Your task to perform on an android device: manage bookmarks in the chrome app Image 0: 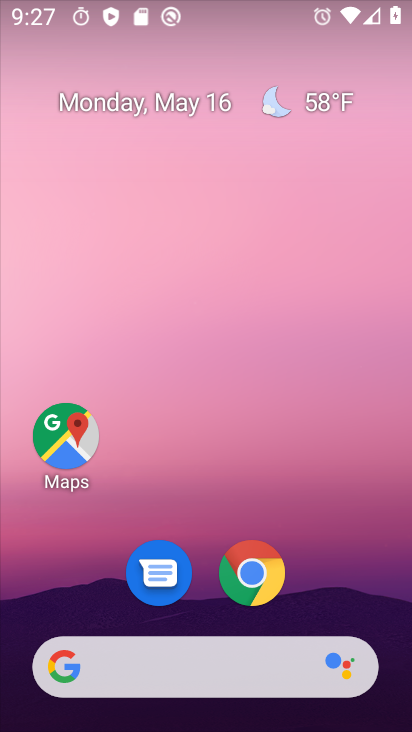
Step 0: drag from (365, 673) to (205, 179)
Your task to perform on an android device: manage bookmarks in the chrome app Image 1: 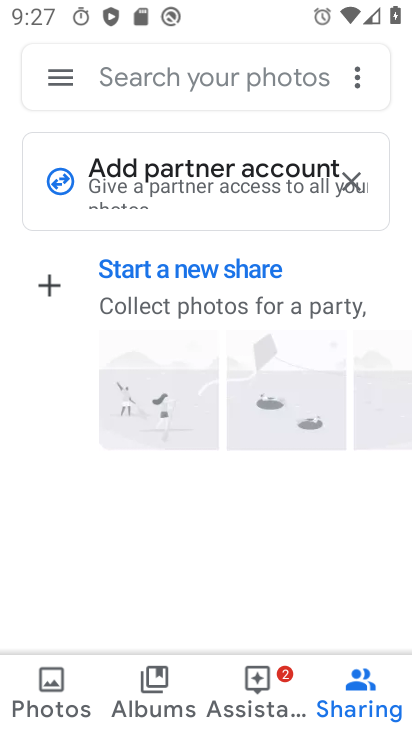
Step 1: press back button
Your task to perform on an android device: manage bookmarks in the chrome app Image 2: 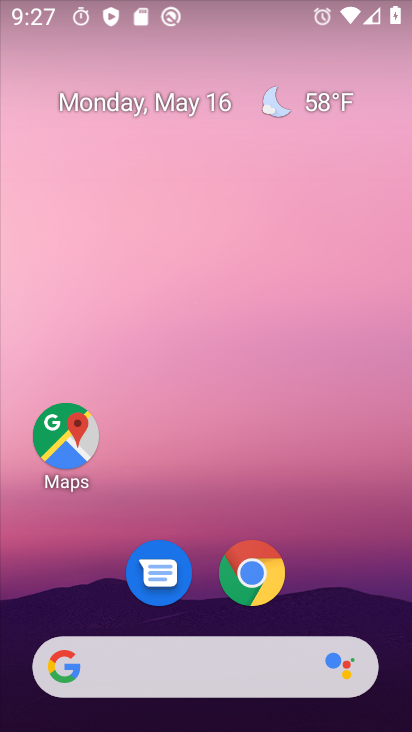
Step 2: drag from (290, 659) to (221, 160)
Your task to perform on an android device: manage bookmarks in the chrome app Image 3: 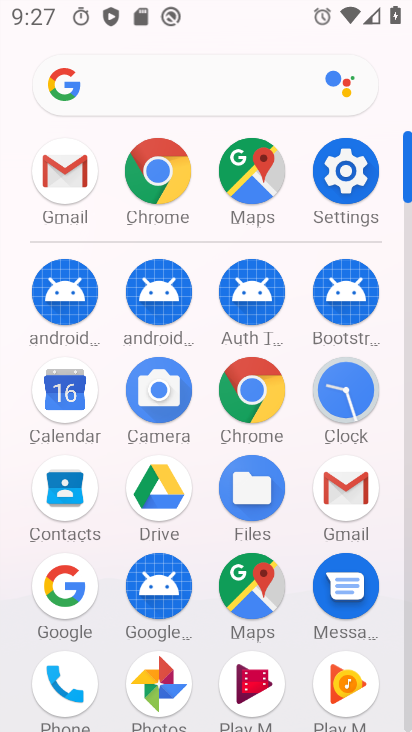
Step 3: click (168, 177)
Your task to perform on an android device: manage bookmarks in the chrome app Image 4: 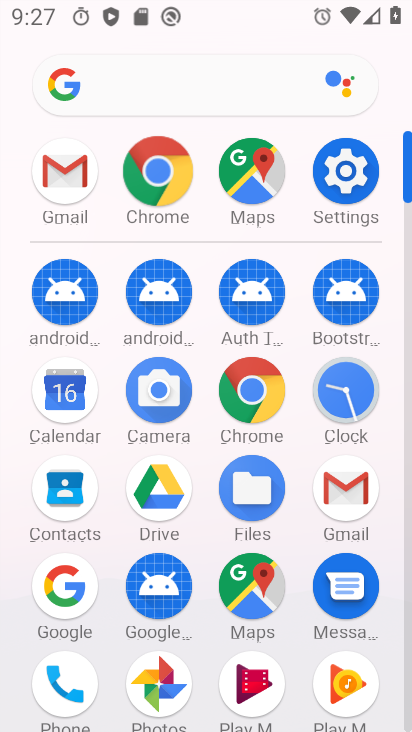
Step 4: click (168, 177)
Your task to perform on an android device: manage bookmarks in the chrome app Image 5: 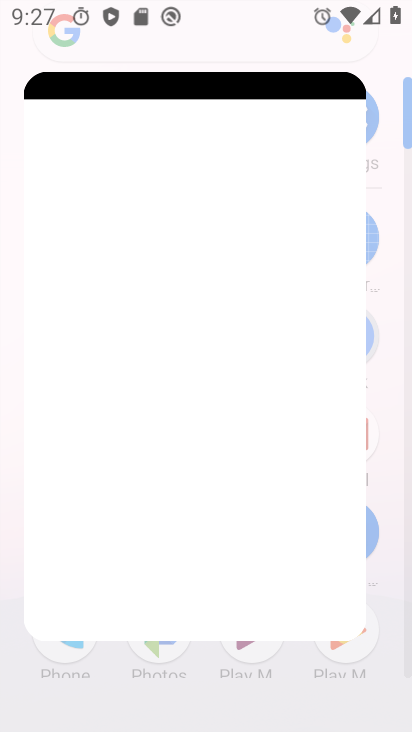
Step 5: click (168, 177)
Your task to perform on an android device: manage bookmarks in the chrome app Image 6: 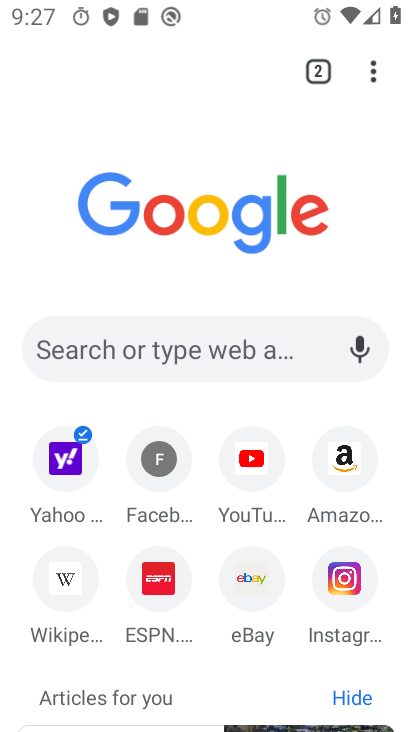
Step 6: click (373, 75)
Your task to perform on an android device: manage bookmarks in the chrome app Image 7: 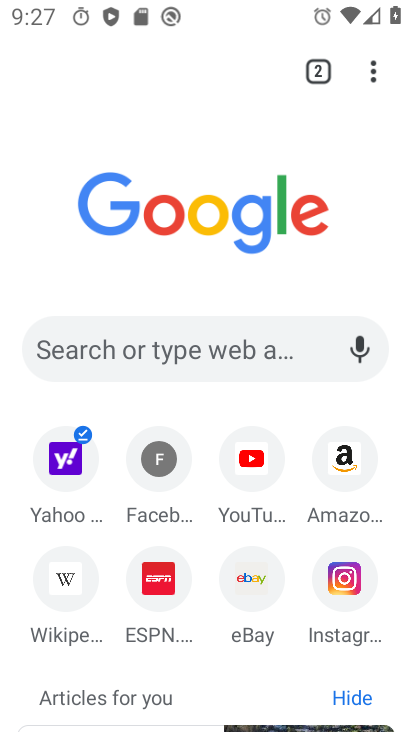
Step 7: click (380, 67)
Your task to perform on an android device: manage bookmarks in the chrome app Image 8: 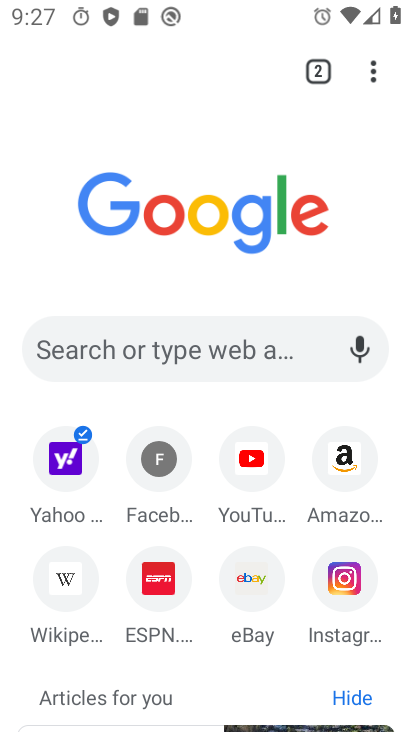
Step 8: task complete